Your task to perform on an android device: Open Google Image 0: 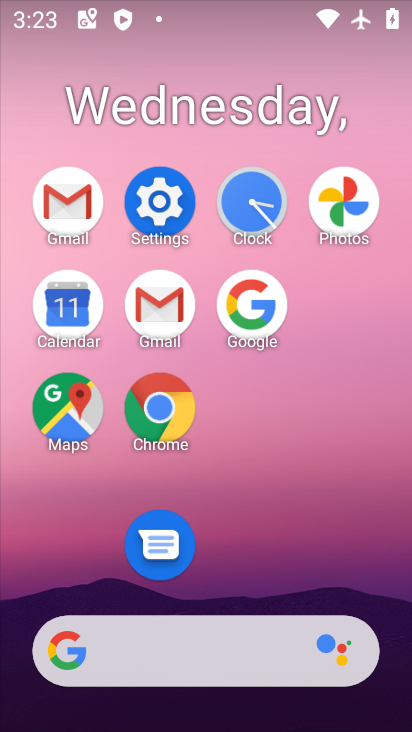
Step 0: click (269, 300)
Your task to perform on an android device: Open Google Image 1: 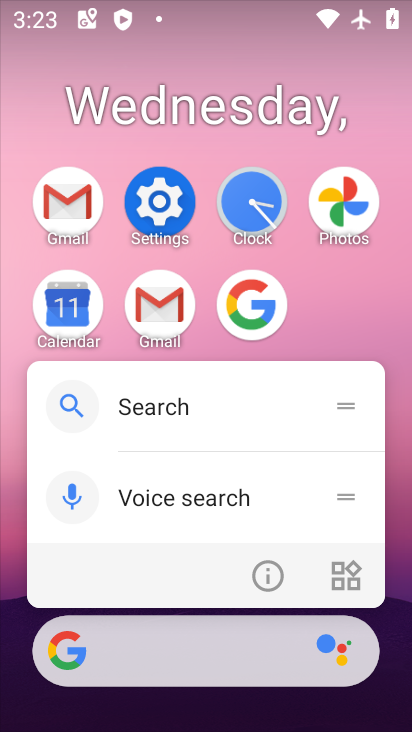
Step 1: click (246, 302)
Your task to perform on an android device: Open Google Image 2: 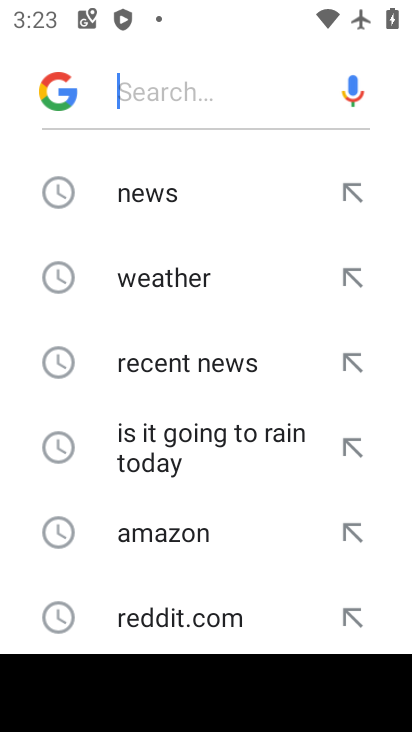
Step 2: task complete